Your task to perform on an android device: What's the weather going to be tomorrow? Image 0: 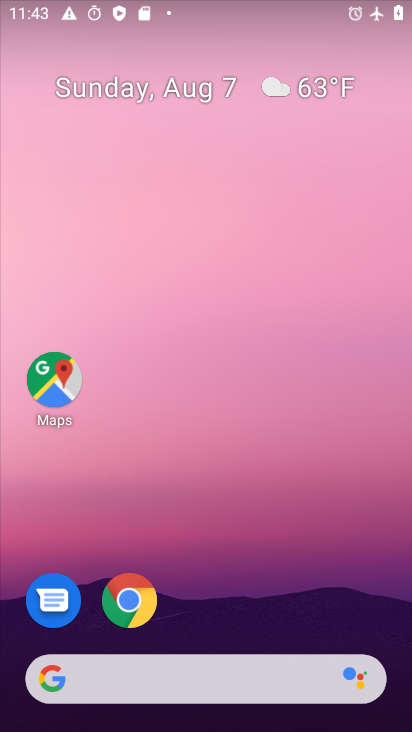
Step 0: drag from (277, 499) to (281, 11)
Your task to perform on an android device: What's the weather going to be tomorrow? Image 1: 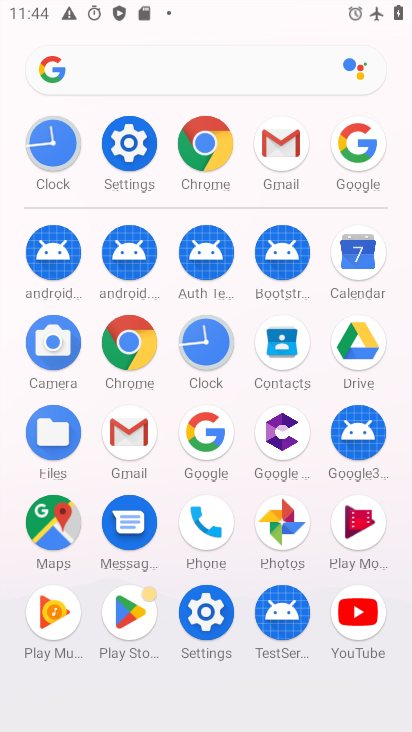
Step 1: click (187, 438)
Your task to perform on an android device: What's the weather going to be tomorrow? Image 2: 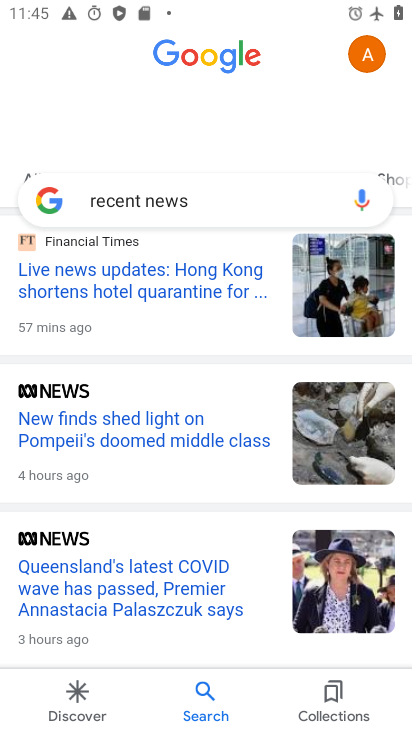
Step 2: click (287, 196)
Your task to perform on an android device: What's the weather going to be tomorrow? Image 3: 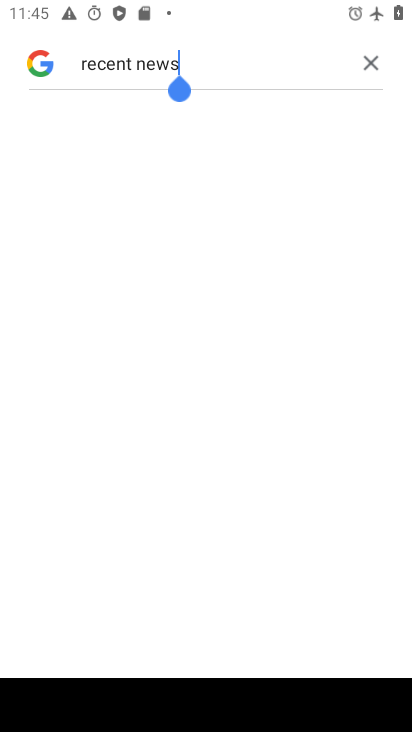
Step 3: click (369, 67)
Your task to perform on an android device: What's the weather going to be tomorrow? Image 4: 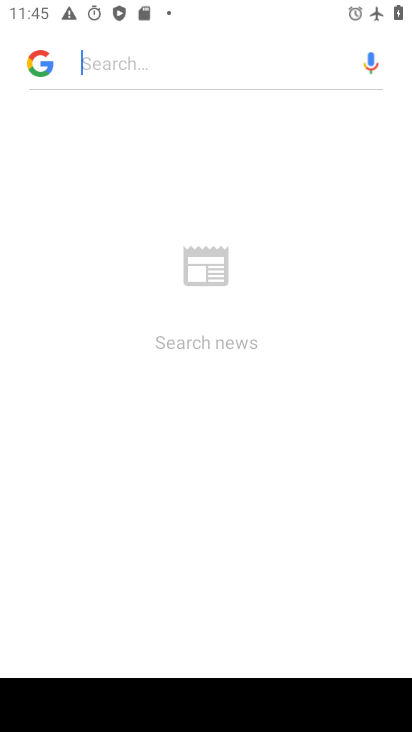
Step 4: type "weather"
Your task to perform on an android device: What's the weather going to be tomorrow? Image 5: 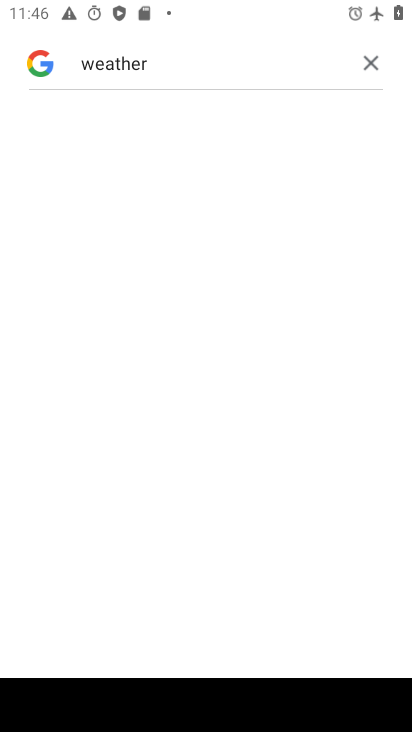
Step 5: press home button
Your task to perform on an android device: What's the weather going to be tomorrow? Image 6: 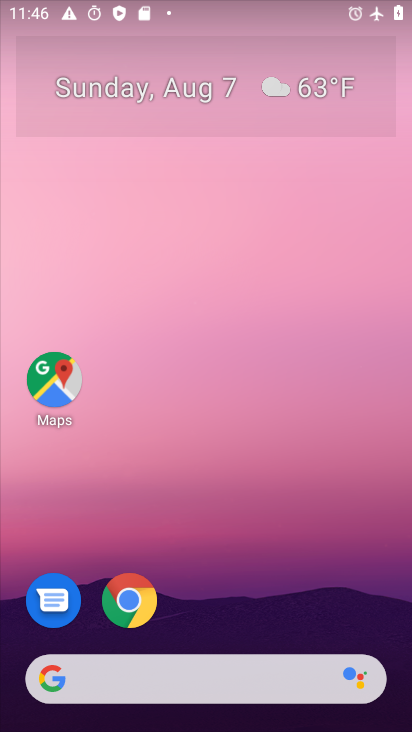
Step 6: drag from (213, 622) to (260, 129)
Your task to perform on an android device: What's the weather going to be tomorrow? Image 7: 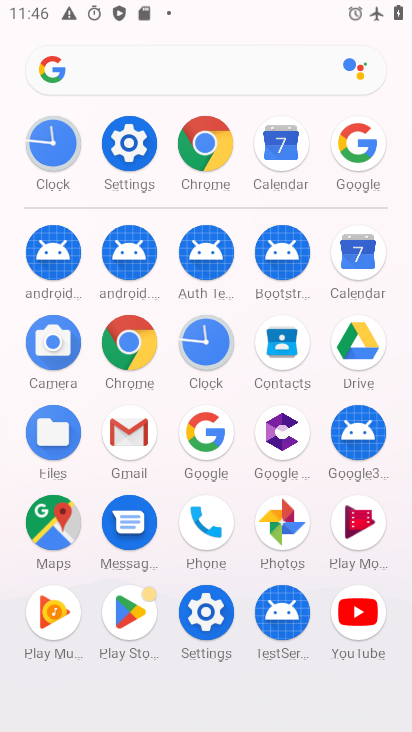
Step 7: click (198, 461)
Your task to perform on an android device: What's the weather going to be tomorrow? Image 8: 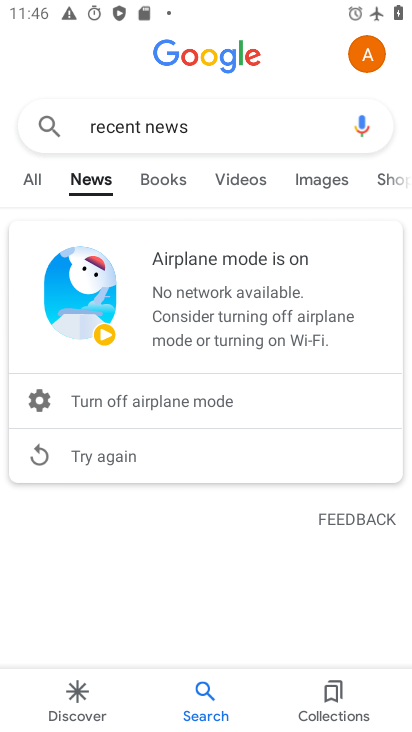
Step 8: click (31, 182)
Your task to perform on an android device: What's the weather going to be tomorrow? Image 9: 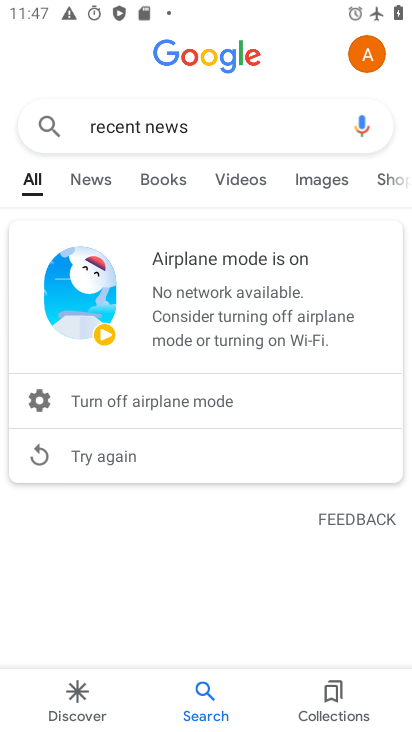
Step 9: task complete